Your task to perform on an android device: Open location settings Image 0: 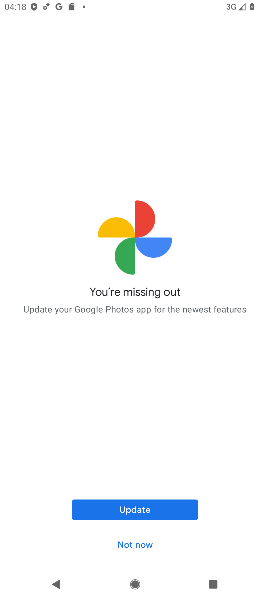
Step 0: press home button
Your task to perform on an android device: Open location settings Image 1: 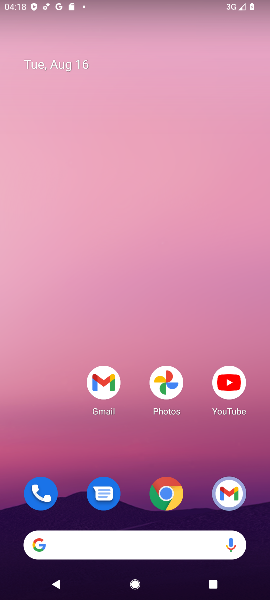
Step 1: drag from (68, 480) to (74, 145)
Your task to perform on an android device: Open location settings Image 2: 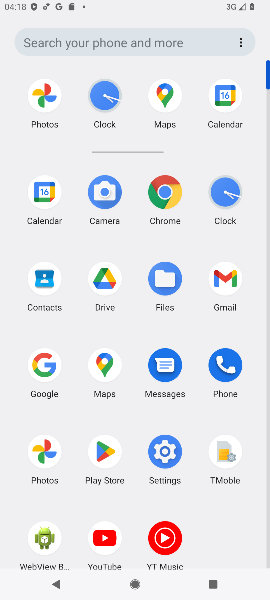
Step 2: click (159, 458)
Your task to perform on an android device: Open location settings Image 3: 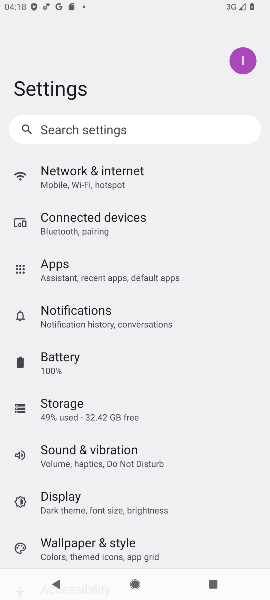
Step 3: drag from (228, 455) to (234, 371)
Your task to perform on an android device: Open location settings Image 4: 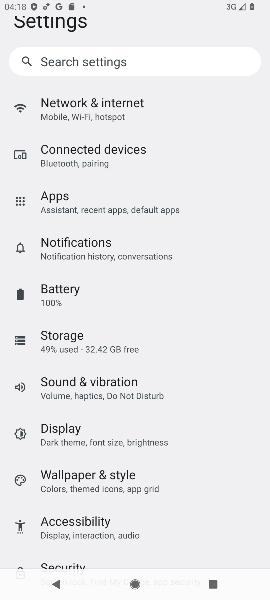
Step 4: drag from (220, 465) to (223, 403)
Your task to perform on an android device: Open location settings Image 5: 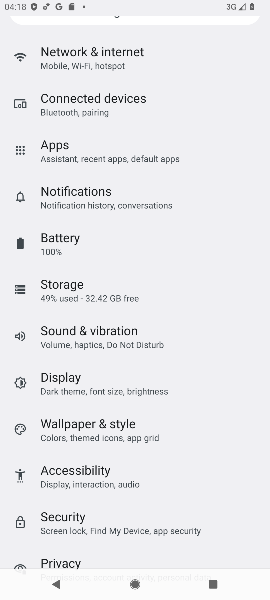
Step 5: drag from (216, 469) to (223, 347)
Your task to perform on an android device: Open location settings Image 6: 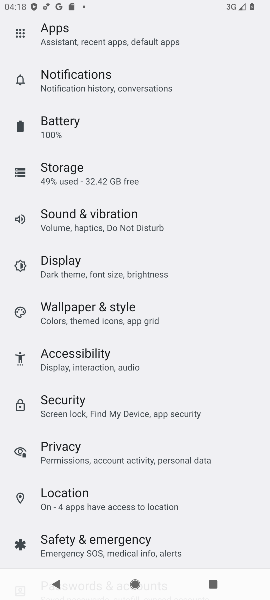
Step 6: drag from (216, 477) to (215, 424)
Your task to perform on an android device: Open location settings Image 7: 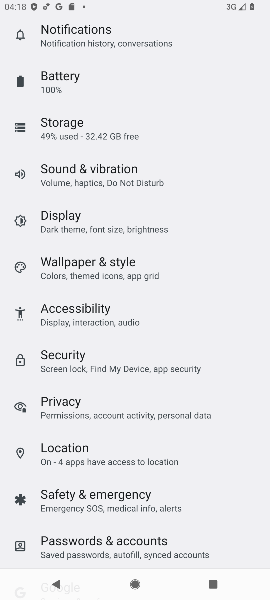
Step 7: click (174, 464)
Your task to perform on an android device: Open location settings Image 8: 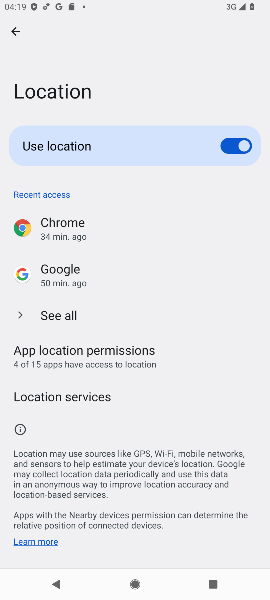
Step 8: task complete